Your task to perform on an android device: Open Google Maps Image 0: 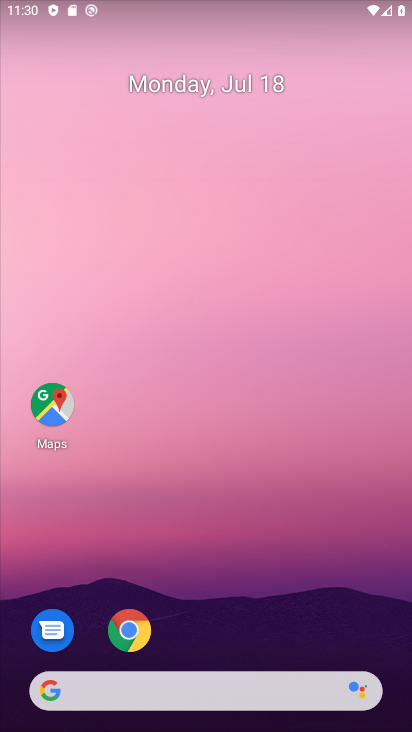
Step 0: click (59, 399)
Your task to perform on an android device: Open Google Maps Image 1: 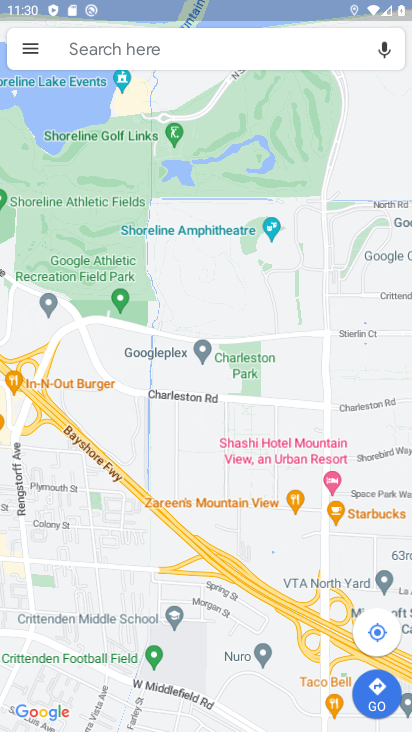
Step 1: task complete